Your task to perform on an android device: Go to Yahoo.com Image 0: 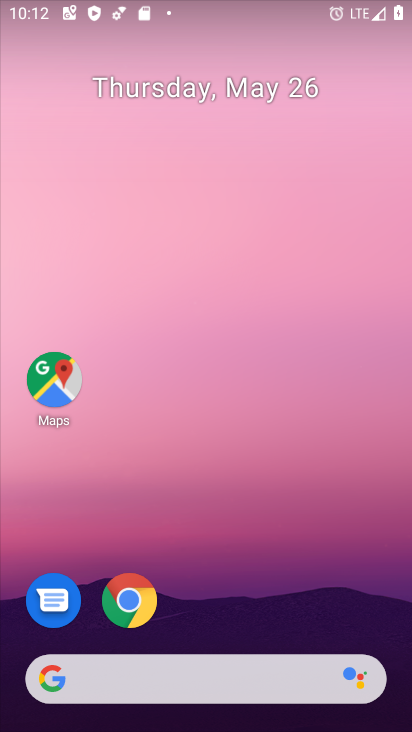
Step 0: drag from (251, 577) to (339, 168)
Your task to perform on an android device: Go to Yahoo.com Image 1: 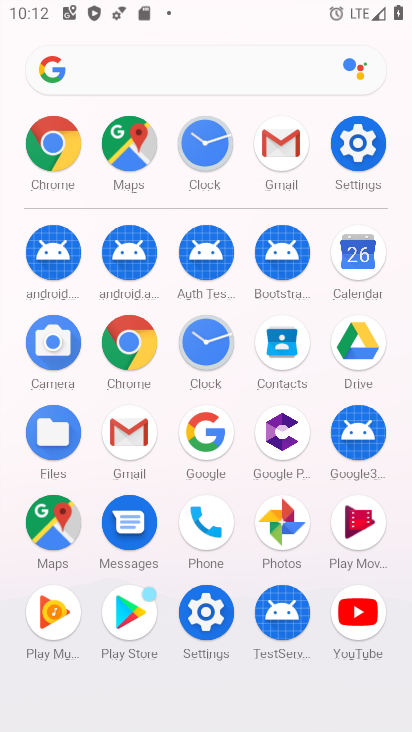
Step 1: click (131, 343)
Your task to perform on an android device: Go to Yahoo.com Image 2: 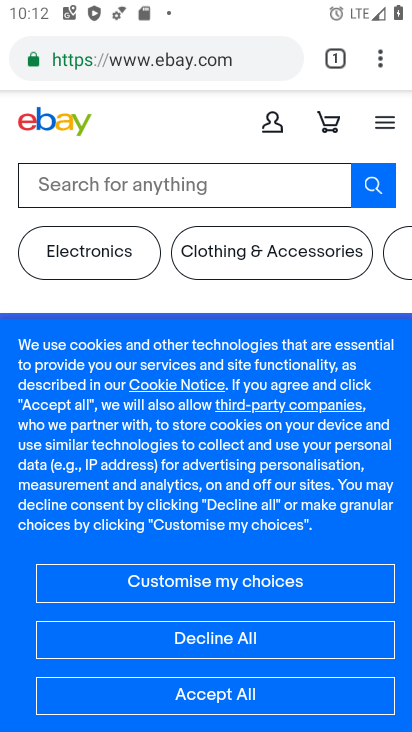
Step 2: click (185, 57)
Your task to perform on an android device: Go to Yahoo.com Image 3: 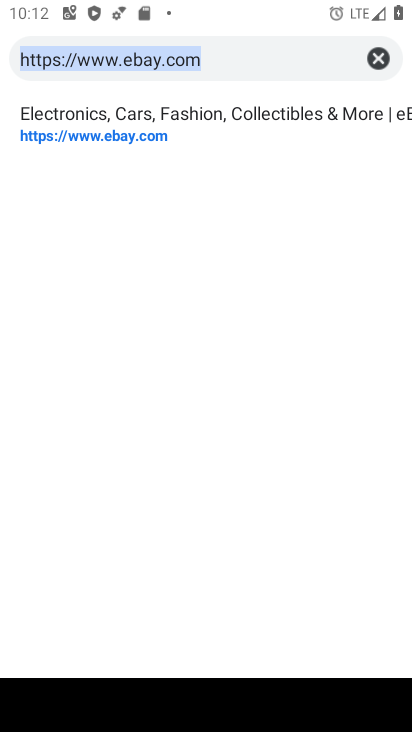
Step 3: type "yahoo.com"
Your task to perform on an android device: Go to Yahoo.com Image 4: 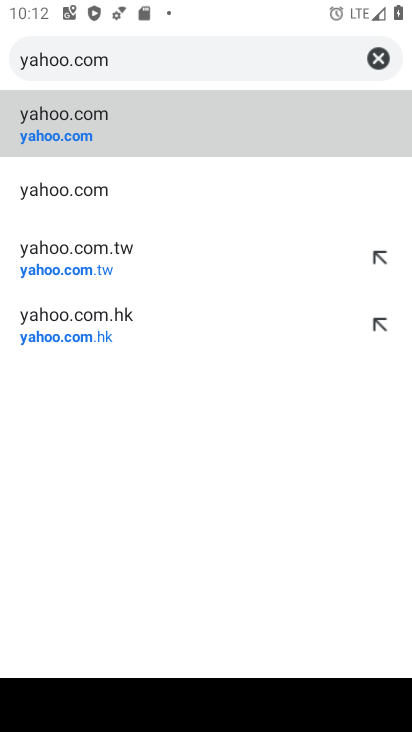
Step 4: click (71, 137)
Your task to perform on an android device: Go to Yahoo.com Image 5: 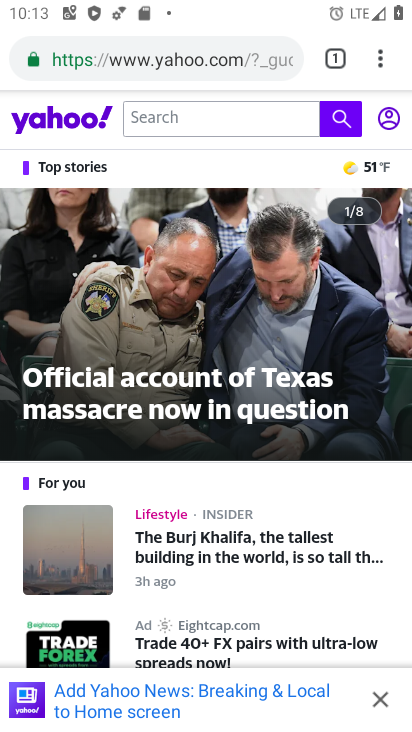
Step 5: task complete